Your task to perform on an android device: Go to wifi settings Image 0: 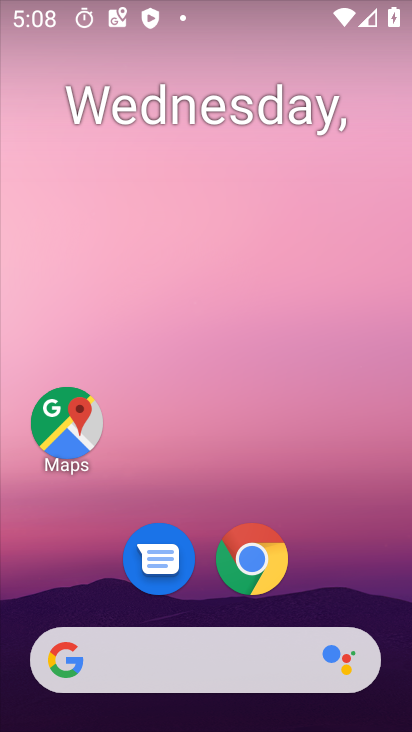
Step 0: drag from (347, 564) to (227, 14)
Your task to perform on an android device: Go to wifi settings Image 1: 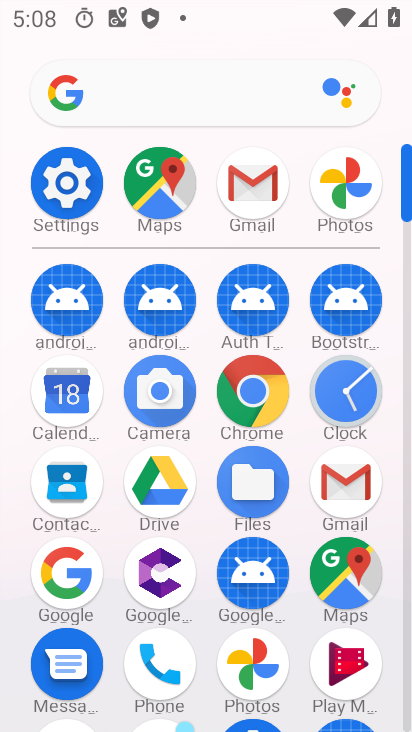
Step 1: click (66, 190)
Your task to perform on an android device: Go to wifi settings Image 2: 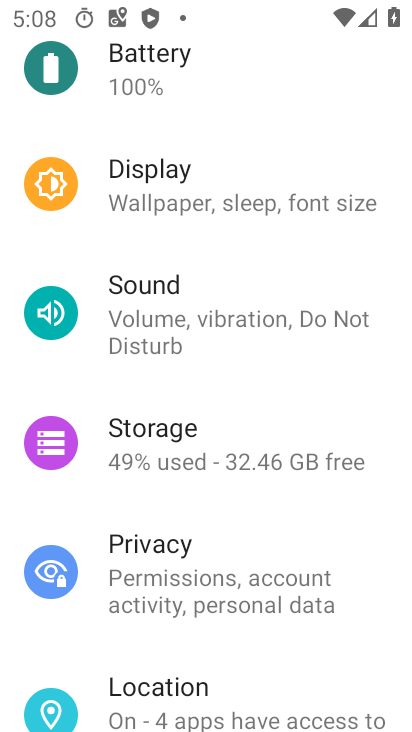
Step 2: drag from (275, 155) to (244, 614)
Your task to perform on an android device: Go to wifi settings Image 3: 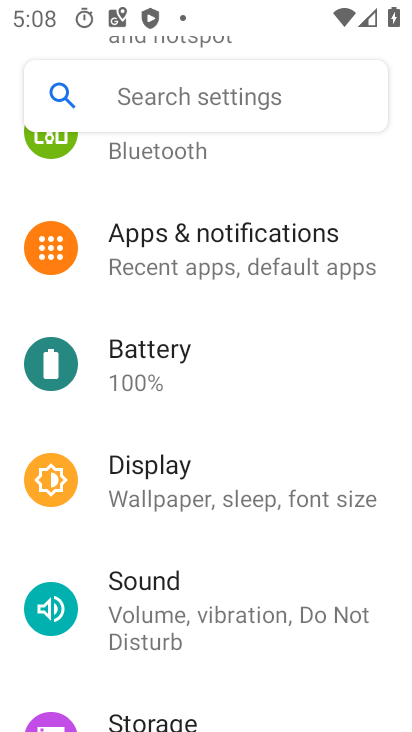
Step 3: drag from (239, 230) to (275, 587)
Your task to perform on an android device: Go to wifi settings Image 4: 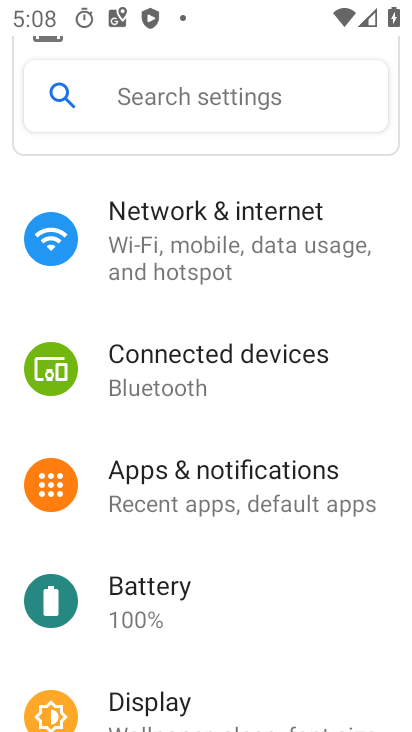
Step 4: click (190, 265)
Your task to perform on an android device: Go to wifi settings Image 5: 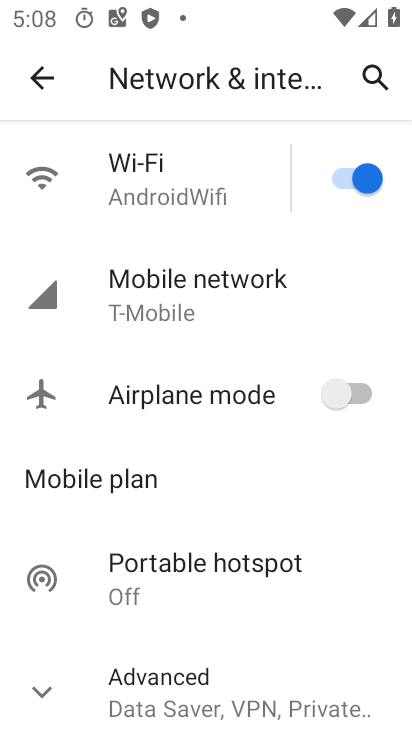
Step 5: click (206, 164)
Your task to perform on an android device: Go to wifi settings Image 6: 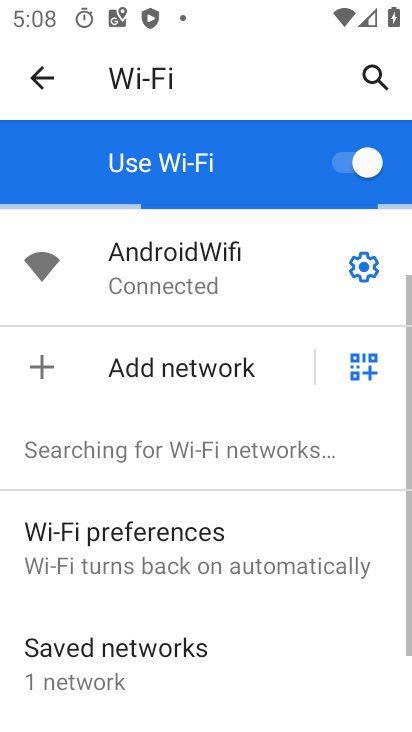
Step 6: task complete